Your task to perform on an android device: turn off notifications settings in the gmail app Image 0: 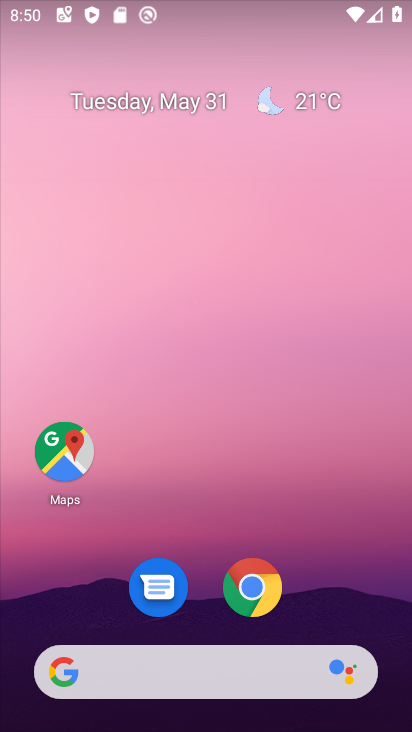
Step 0: drag from (198, 637) to (264, 23)
Your task to perform on an android device: turn off notifications settings in the gmail app Image 1: 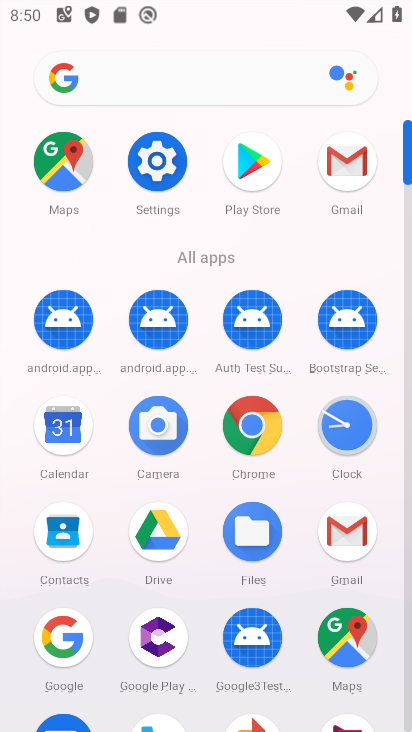
Step 1: click (358, 171)
Your task to perform on an android device: turn off notifications settings in the gmail app Image 2: 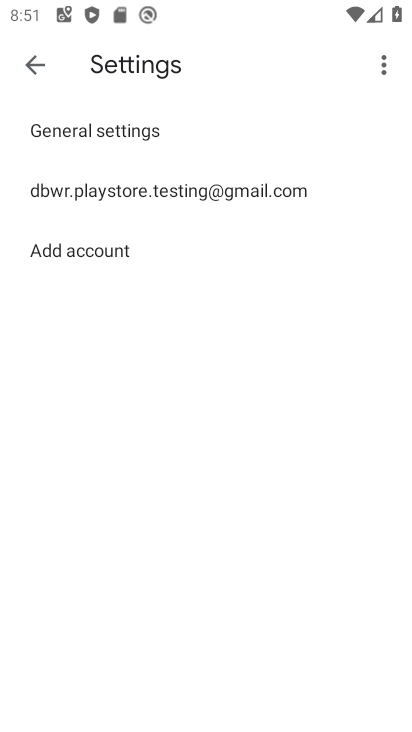
Step 2: click (223, 192)
Your task to perform on an android device: turn off notifications settings in the gmail app Image 3: 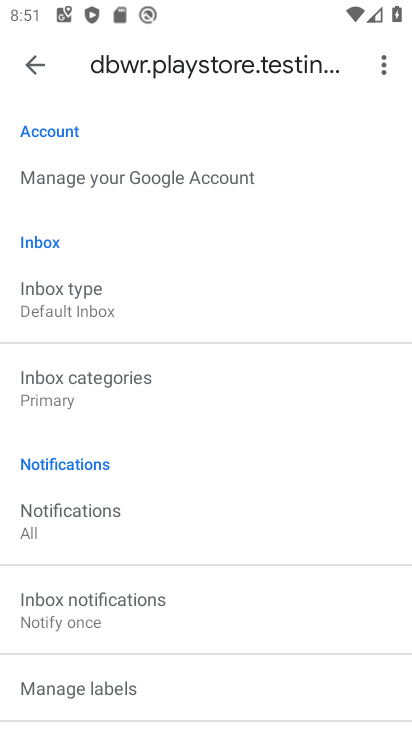
Step 3: click (99, 551)
Your task to perform on an android device: turn off notifications settings in the gmail app Image 4: 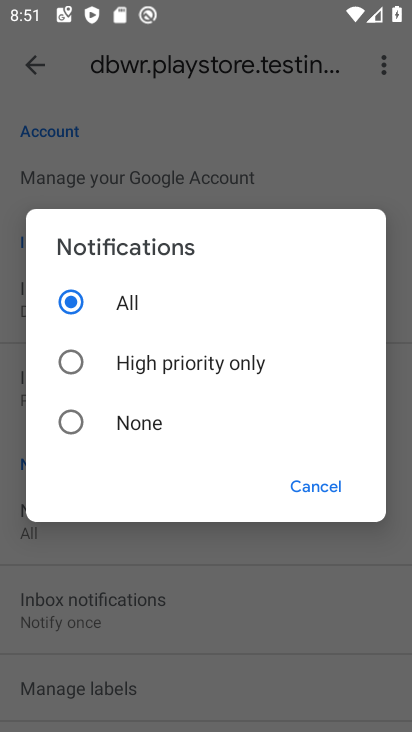
Step 4: click (139, 409)
Your task to perform on an android device: turn off notifications settings in the gmail app Image 5: 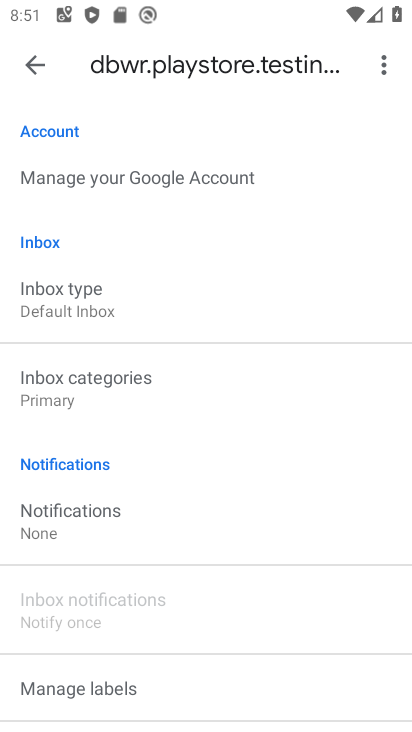
Step 5: task complete